Your task to perform on an android device: Clear the cart on amazon.com. Image 0: 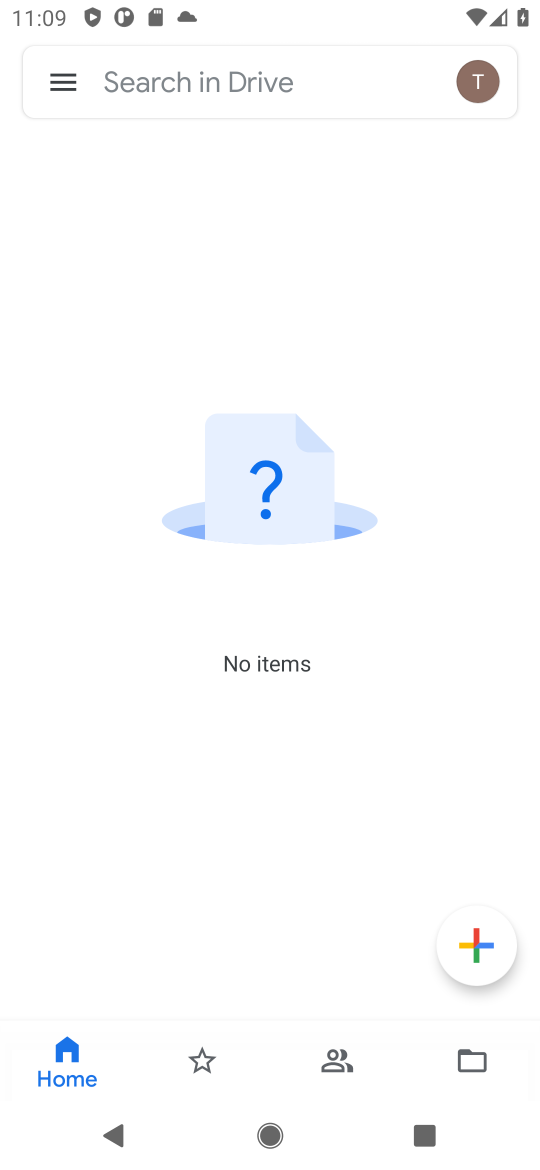
Step 0: press home button
Your task to perform on an android device: Clear the cart on amazon.com. Image 1: 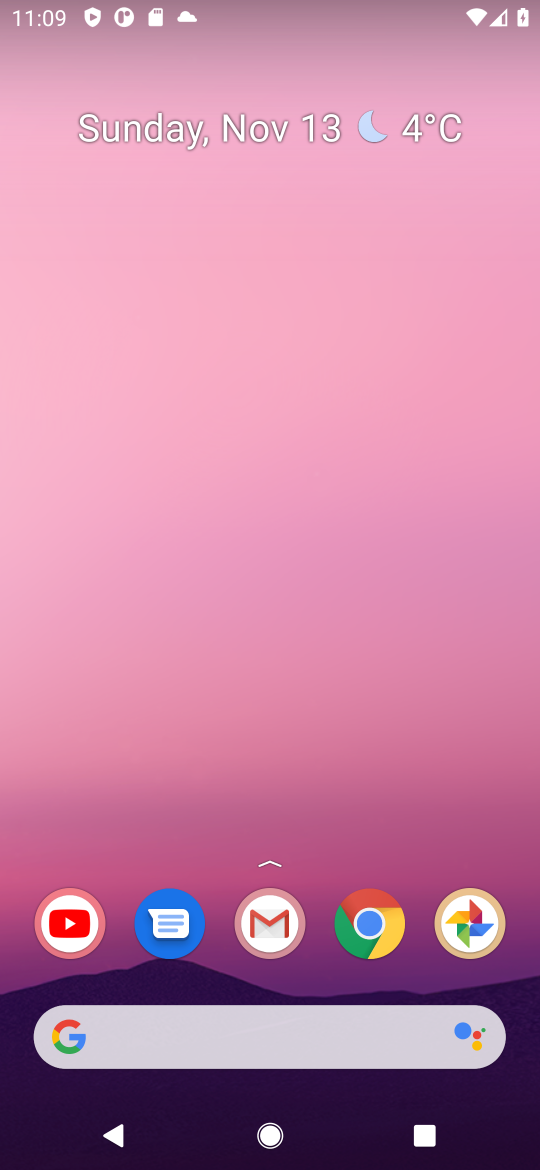
Step 1: click (371, 938)
Your task to perform on an android device: Clear the cart on amazon.com. Image 2: 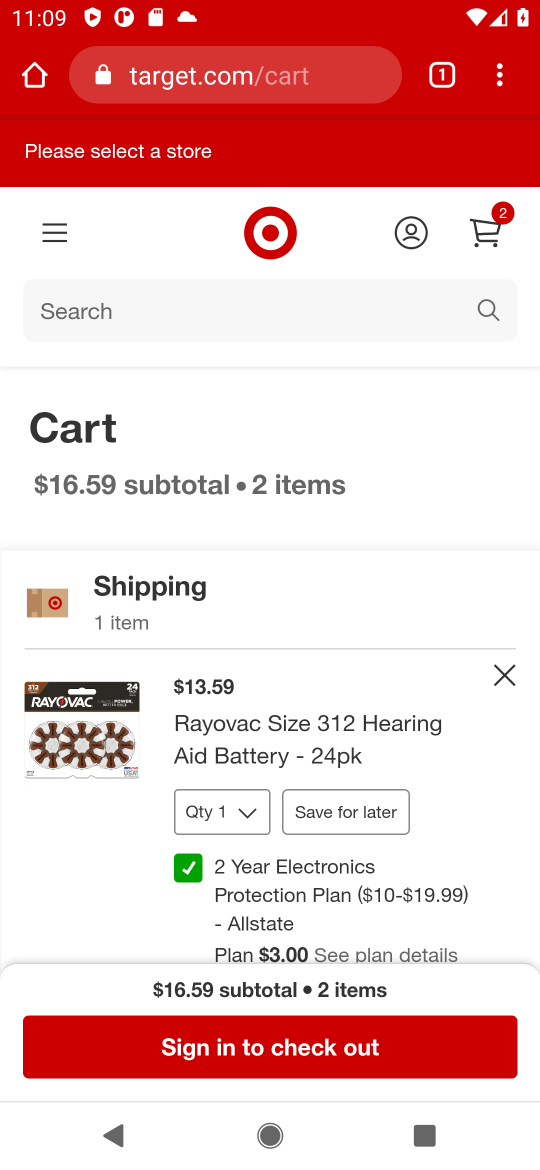
Step 2: click (166, 91)
Your task to perform on an android device: Clear the cart on amazon.com. Image 3: 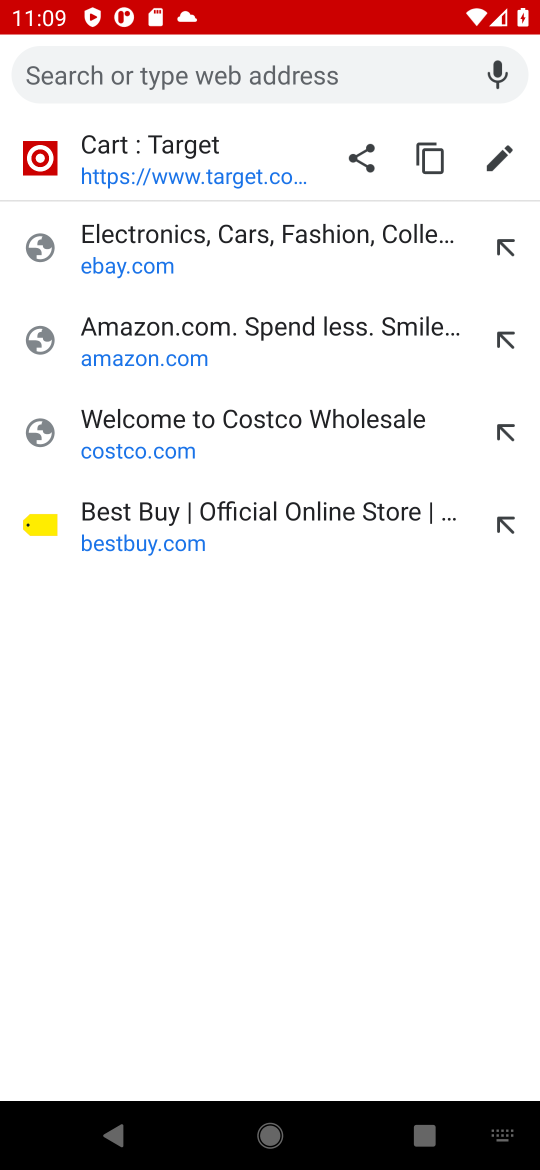
Step 3: type "amazon.com"
Your task to perform on an android device: Clear the cart on amazon.com. Image 4: 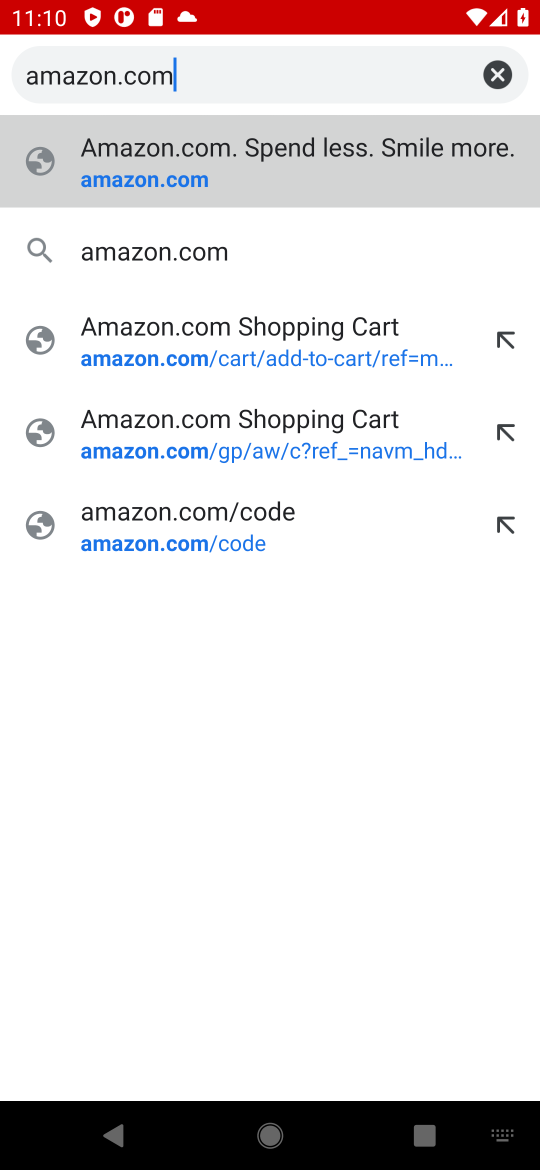
Step 4: press enter
Your task to perform on an android device: Clear the cart on amazon.com. Image 5: 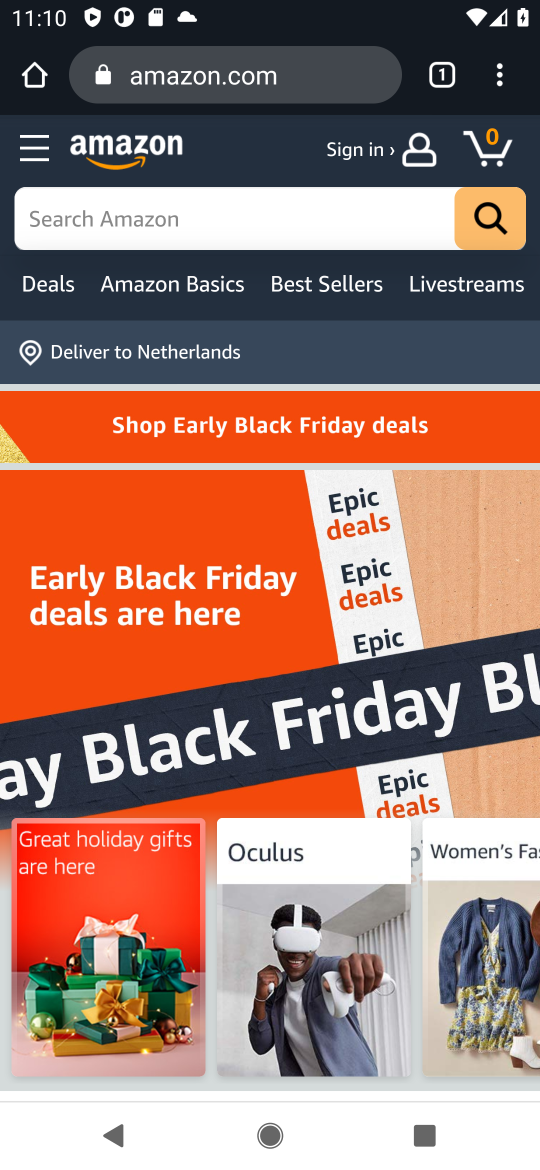
Step 5: click (498, 137)
Your task to perform on an android device: Clear the cart on amazon.com. Image 6: 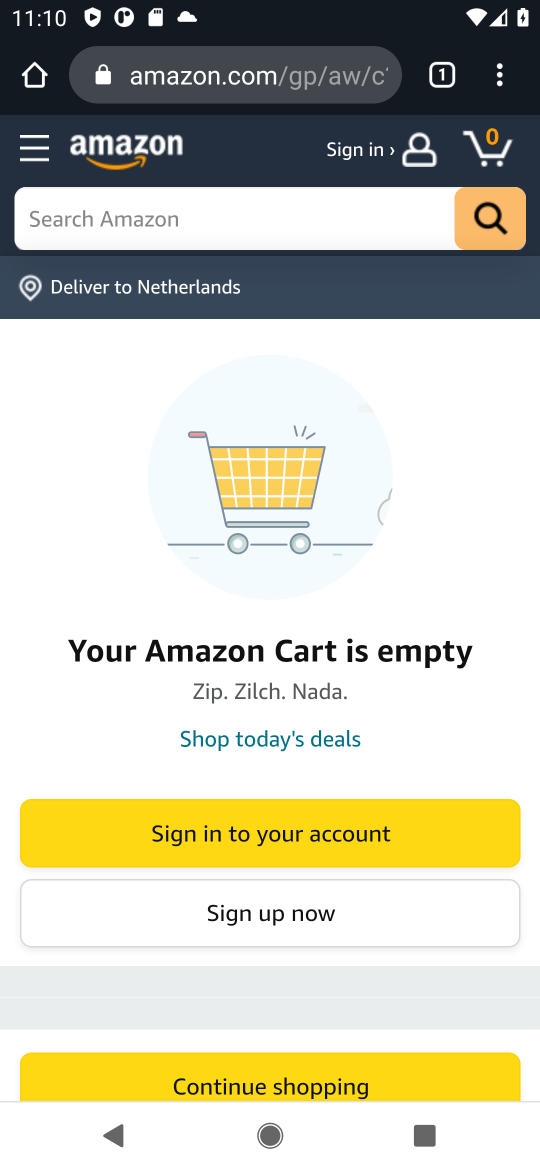
Step 6: task complete